Your task to perform on an android device: Open Reddit.com Image 0: 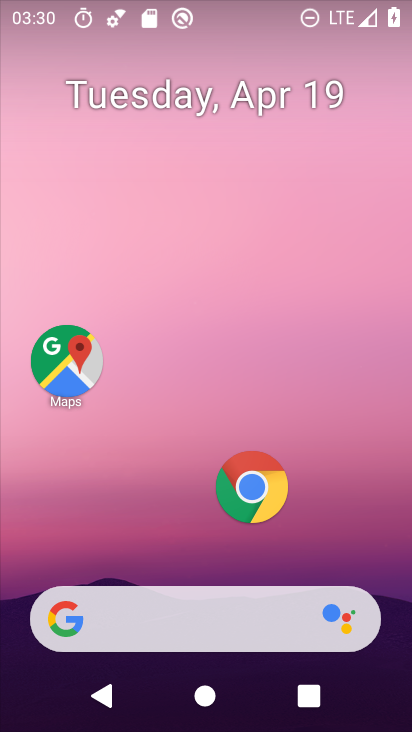
Step 0: click (267, 483)
Your task to perform on an android device: Open Reddit.com Image 1: 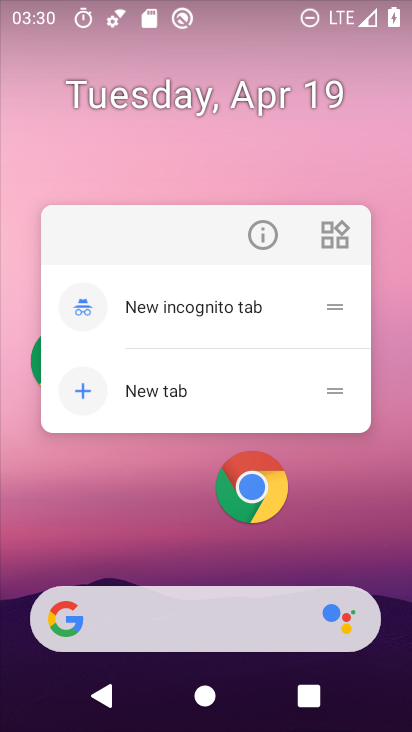
Step 1: click (216, 493)
Your task to perform on an android device: Open Reddit.com Image 2: 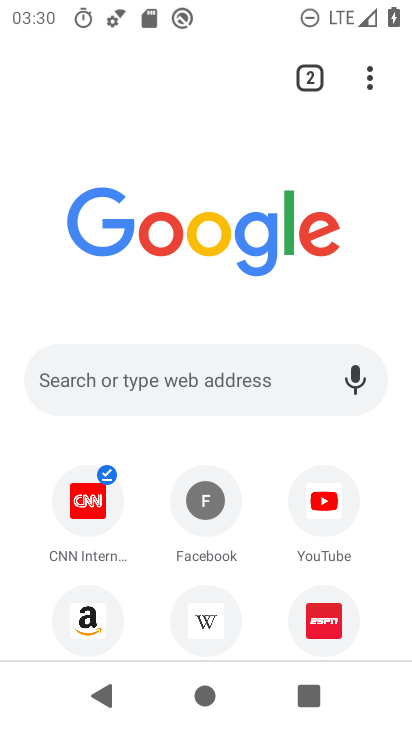
Step 2: click (158, 381)
Your task to perform on an android device: Open Reddit.com Image 3: 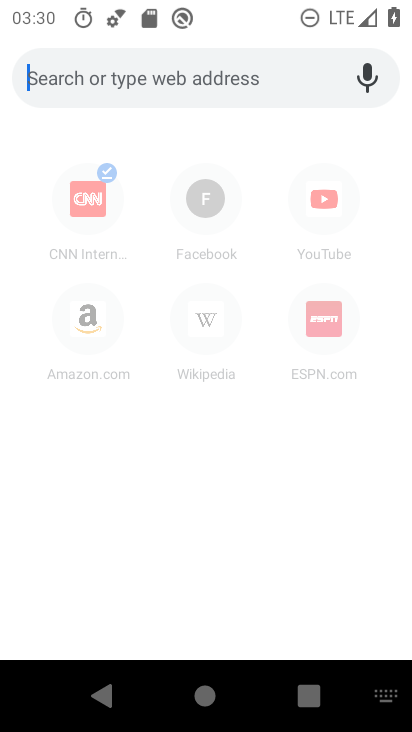
Step 3: type "reddit.com"
Your task to perform on an android device: Open Reddit.com Image 4: 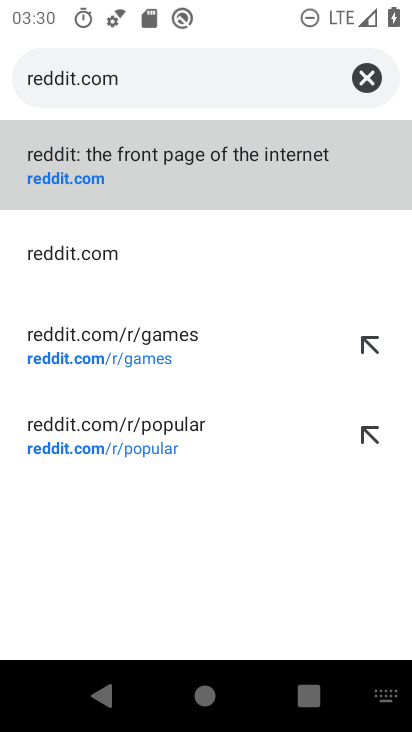
Step 4: click (149, 243)
Your task to perform on an android device: Open Reddit.com Image 5: 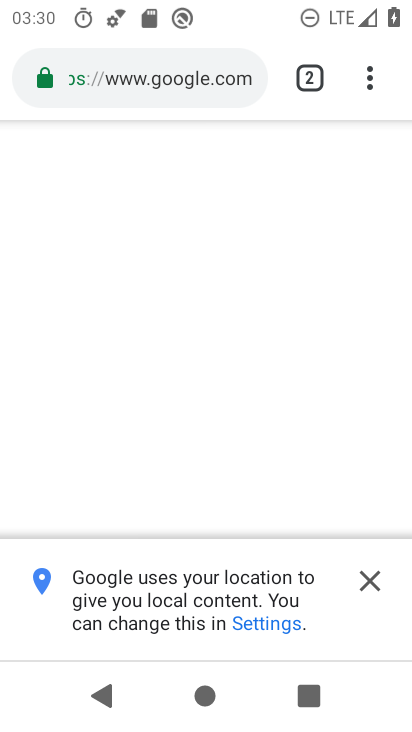
Step 5: click (376, 572)
Your task to perform on an android device: Open Reddit.com Image 6: 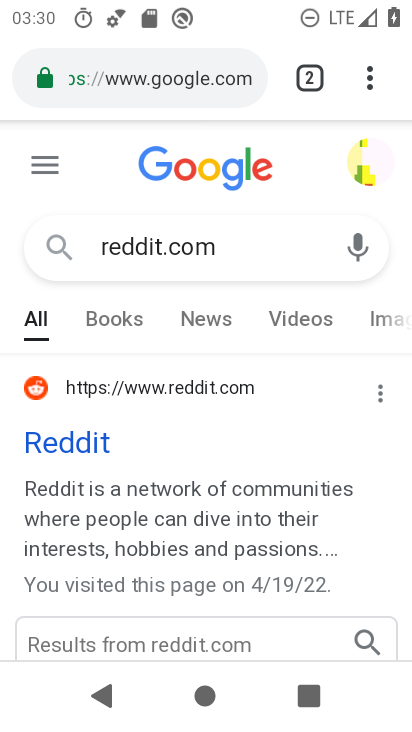
Step 6: click (71, 445)
Your task to perform on an android device: Open Reddit.com Image 7: 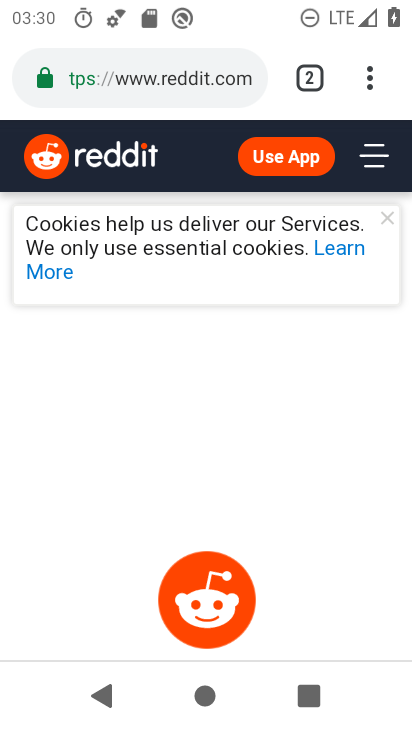
Step 7: task complete